Your task to perform on an android device: Open my contact list Image 0: 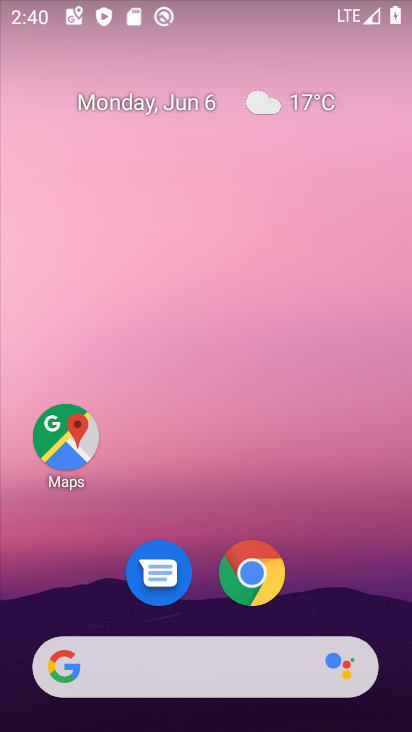
Step 0: drag from (367, 599) to (339, 182)
Your task to perform on an android device: Open my contact list Image 1: 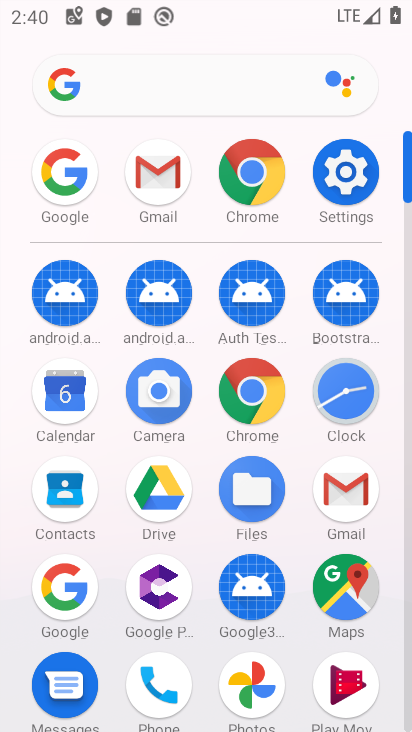
Step 1: click (81, 500)
Your task to perform on an android device: Open my contact list Image 2: 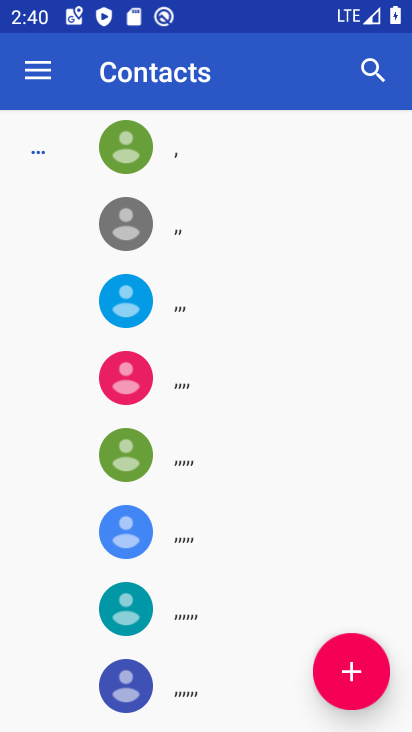
Step 2: task complete